Your task to perform on an android device: Go to internet settings Image 0: 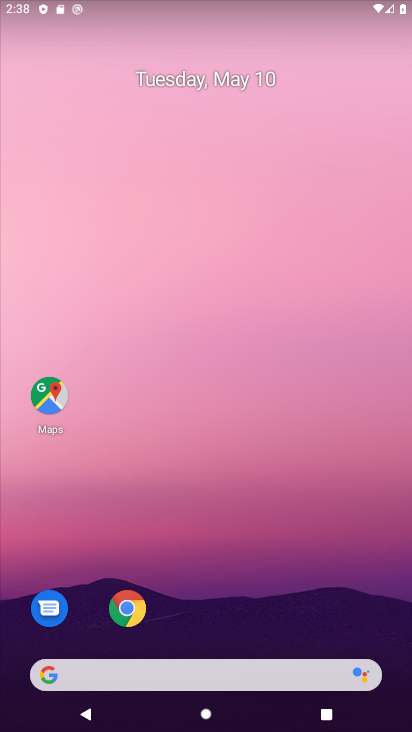
Step 0: drag from (392, 624) to (301, 165)
Your task to perform on an android device: Go to internet settings Image 1: 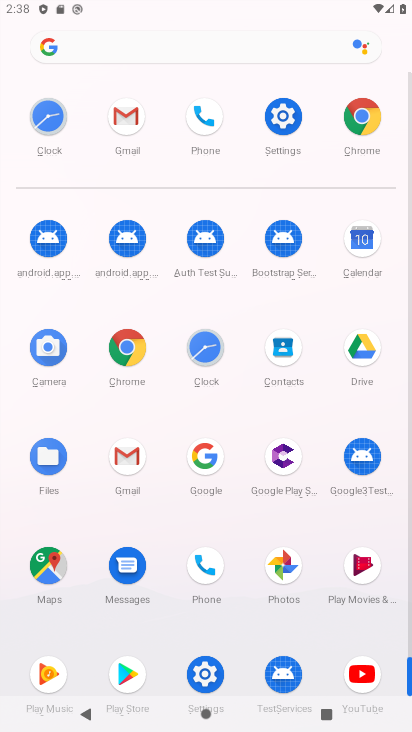
Step 1: click (204, 677)
Your task to perform on an android device: Go to internet settings Image 2: 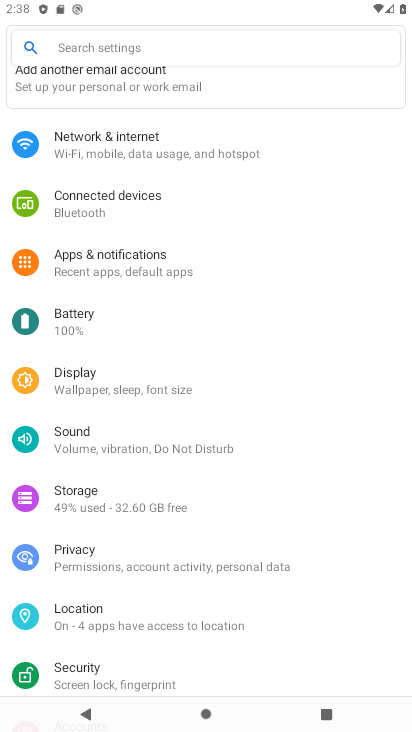
Step 2: click (101, 134)
Your task to perform on an android device: Go to internet settings Image 3: 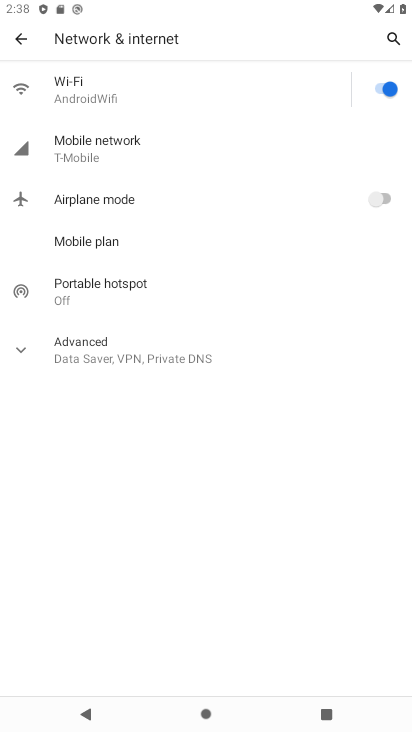
Step 3: click (72, 151)
Your task to perform on an android device: Go to internet settings Image 4: 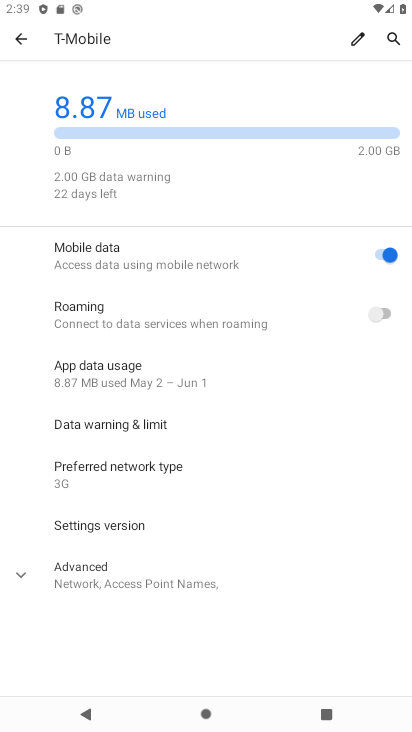
Step 4: task complete